Your task to perform on an android device: make emails show in primary in the gmail app Image 0: 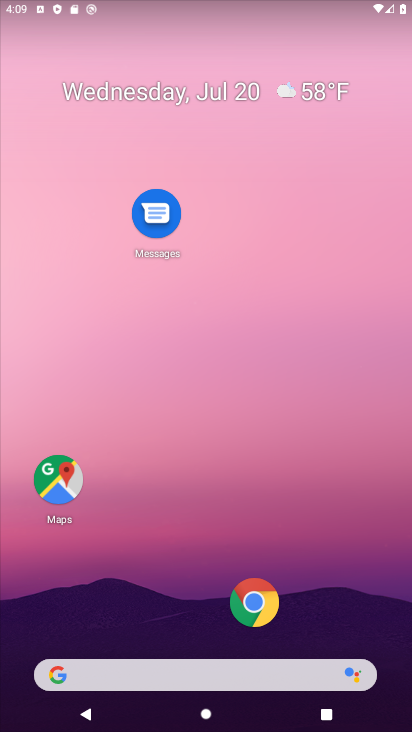
Step 0: drag from (153, 618) to (321, 171)
Your task to perform on an android device: make emails show in primary in the gmail app Image 1: 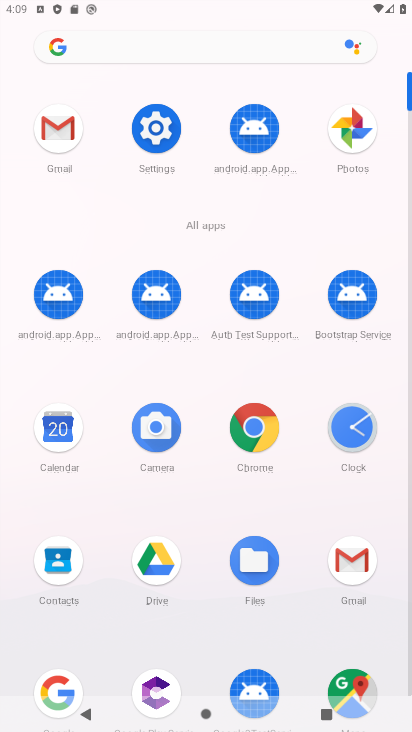
Step 1: click (351, 575)
Your task to perform on an android device: make emails show in primary in the gmail app Image 2: 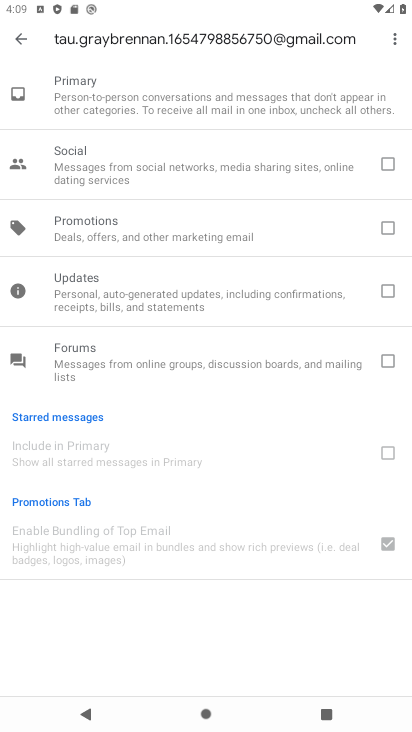
Step 2: click (22, 37)
Your task to perform on an android device: make emails show in primary in the gmail app Image 3: 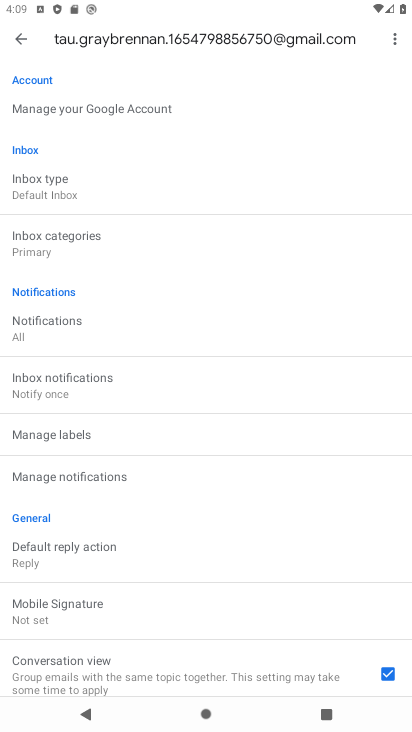
Step 3: task complete